Your task to perform on an android device: Turn on the flashlight Image 0: 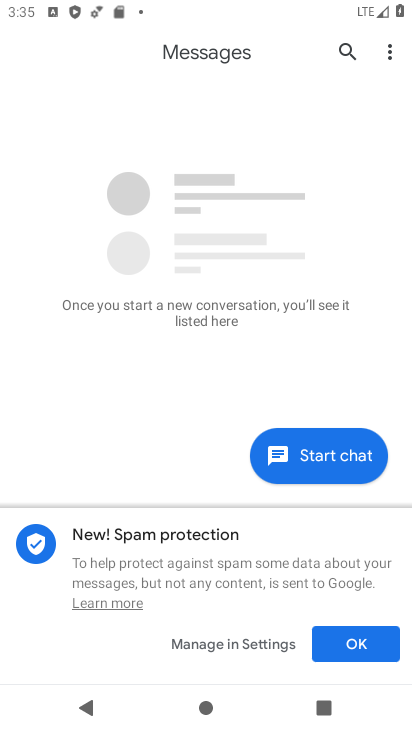
Step 0: press home button
Your task to perform on an android device: Turn on the flashlight Image 1: 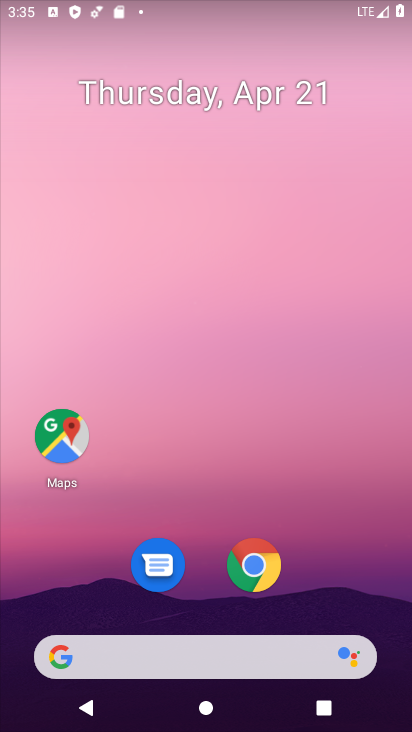
Step 1: drag from (300, 457) to (328, 76)
Your task to perform on an android device: Turn on the flashlight Image 2: 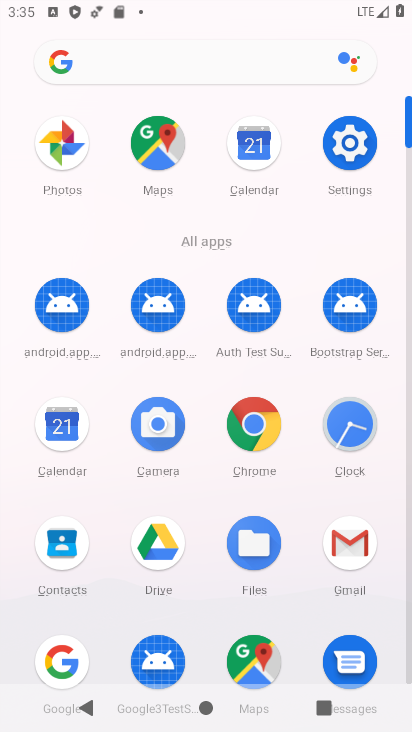
Step 2: click (339, 151)
Your task to perform on an android device: Turn on the flashlight Image 3: 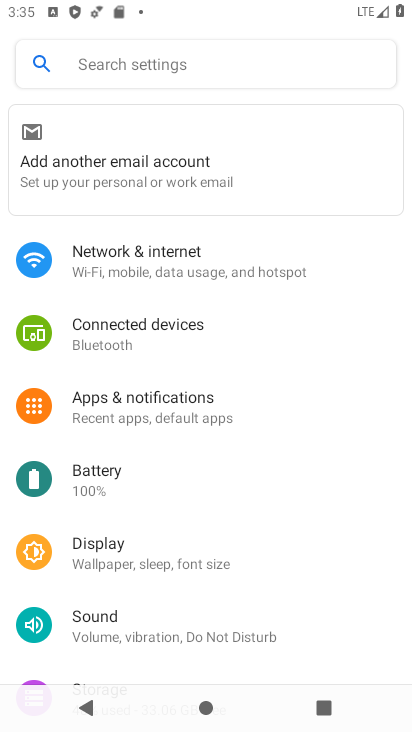
Step 3: click (269, 57)
Your task to perform on an android device: Turn on the flashlight Image 4: 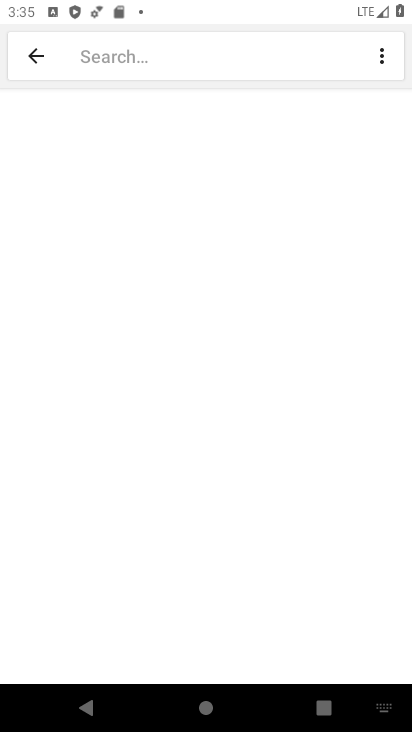
Step 4: type "flashlight"
Your task to perform on an android device: Turn on the flashlight Image 5: 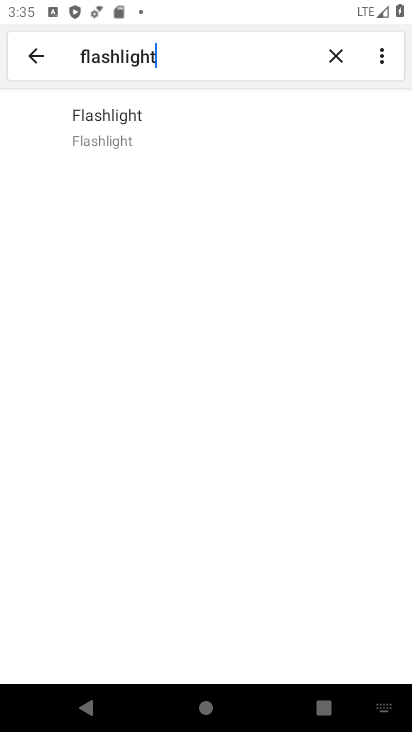
Step 5: click (106, 123)
Your task to perform on an android device: Turn on the flashlight Image 6: 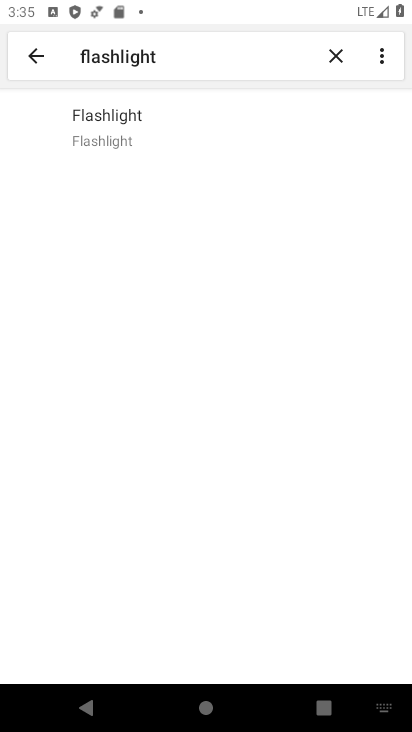
Step 6: task complete